Your task to perform on an android device: turn off sleep mode Image 0: 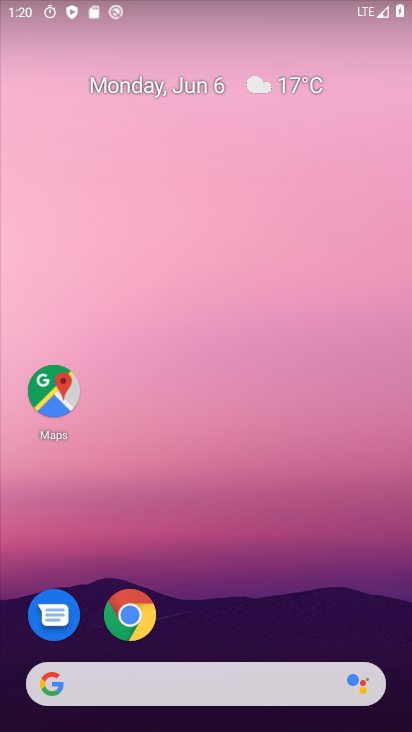
Step 0: click (371, 15)
Your task to perform on an android device: turn off sleep mode Image 1: 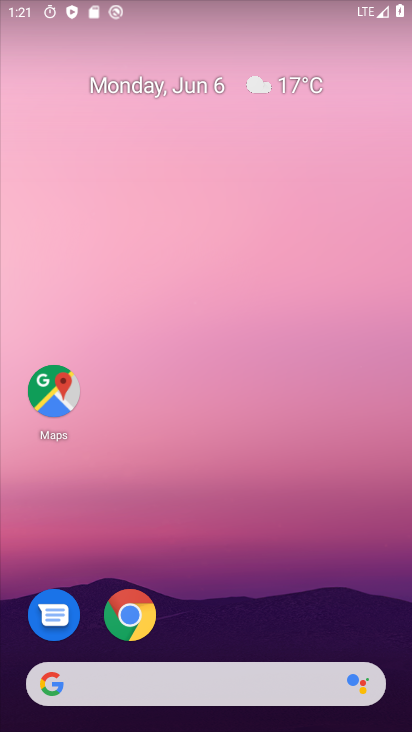
Step 1: drag from (207, 372) to (240, 59)
Your task to perform on an android device: turn off sleep mode Image 2: 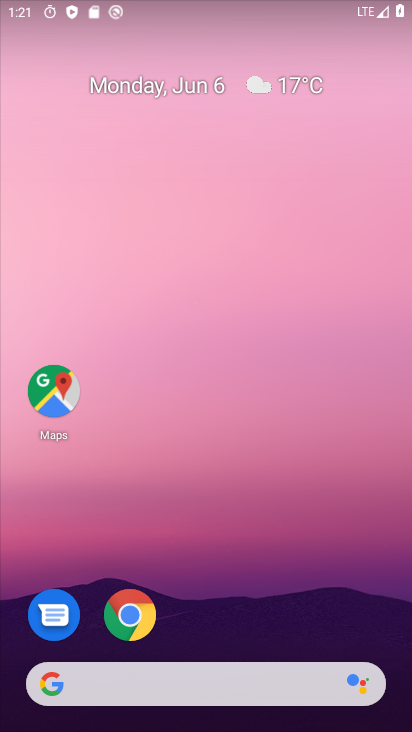
Step 2: drag from (224, 593) to (247, 66)
Your task to perform on an android device: turn off sleep mode Image 3: 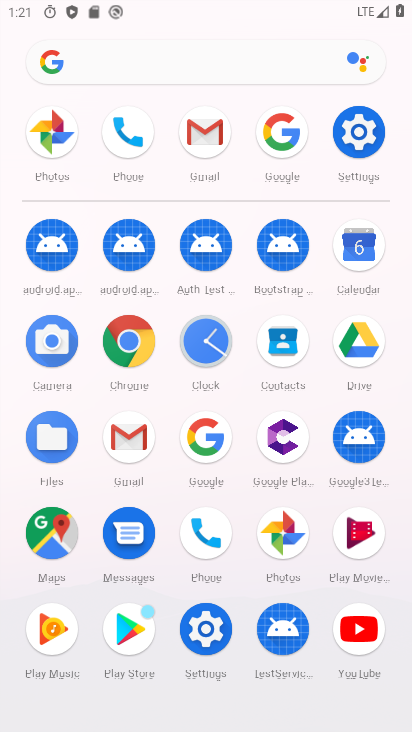
Step 3: click (368, 122)
Your task to perform on an android device: turn off sleep mode Image 4: 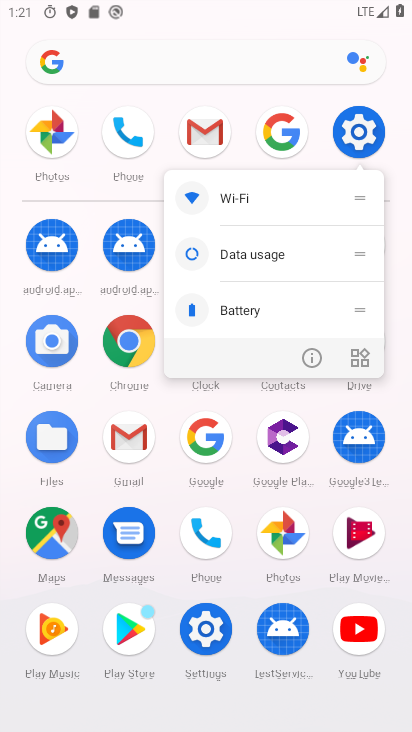
Step 4: click (303, 343)
Your task to perform on an android device: turn off sleep mode Image 5: 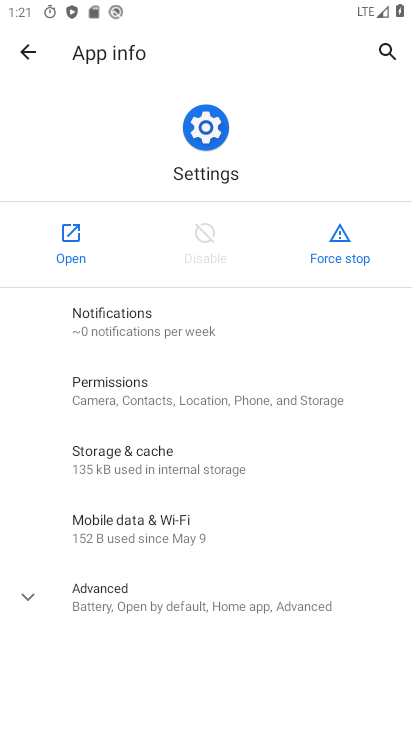
Step 5: click (77, 234)
Your task to perform on an android device: turn off sleep mode Image 6: 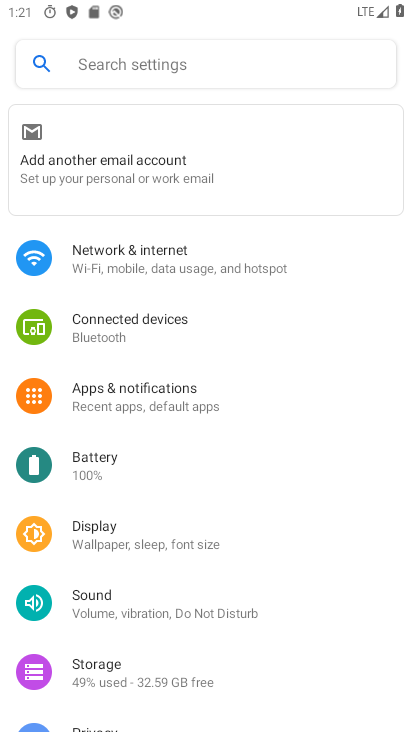
Step 6: click (139, 542)
Your task to perform on an android device: turn off sleep mode Image 7: 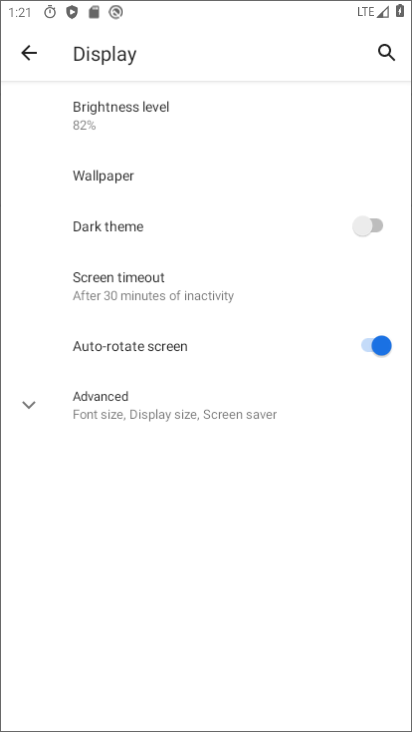
Step 7: drag from (139, 539) to (229, 121)
Your task to perform on an android device: turn off sleep mode Image 8: 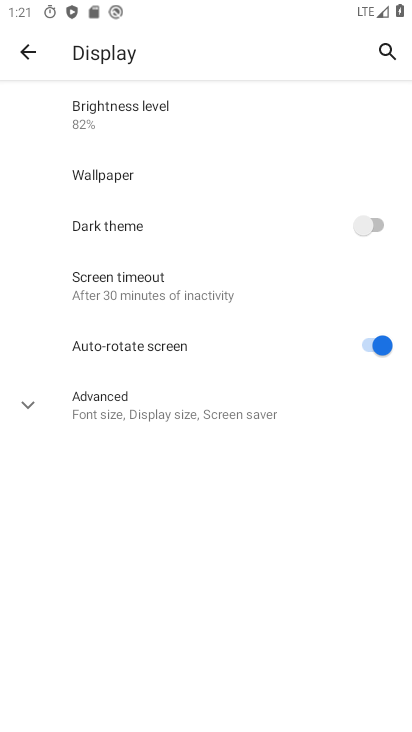
Step 8: click (168, 284)
Your task to perform on an android device: turn off sleep mode Image 9: 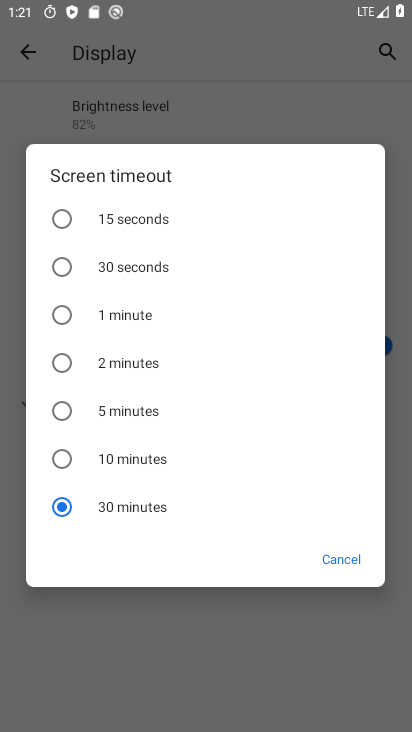
Step 9: task complete